Your task to perform on an android device: Open notification settings Image 0: 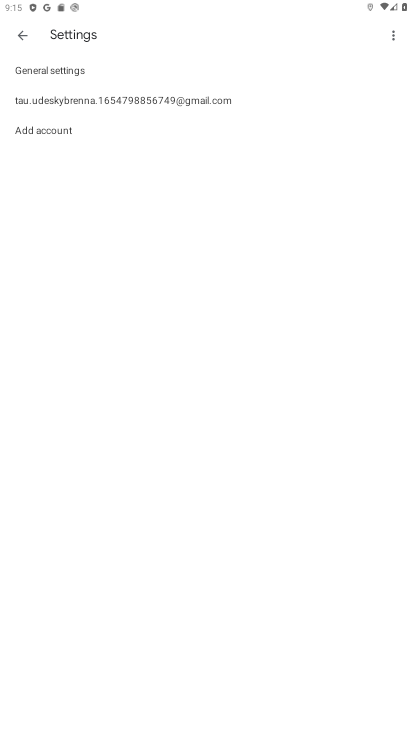
Step 0: press home button
Your task to perform on an android device: Open notification settings Image 1: 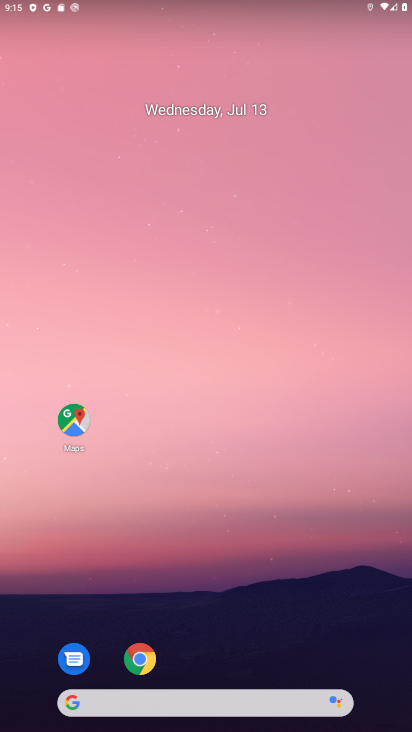
Step 1: drag from (230, 653) to (182, 5)
Your task to perform on an android device: Open notification settings Image 2: 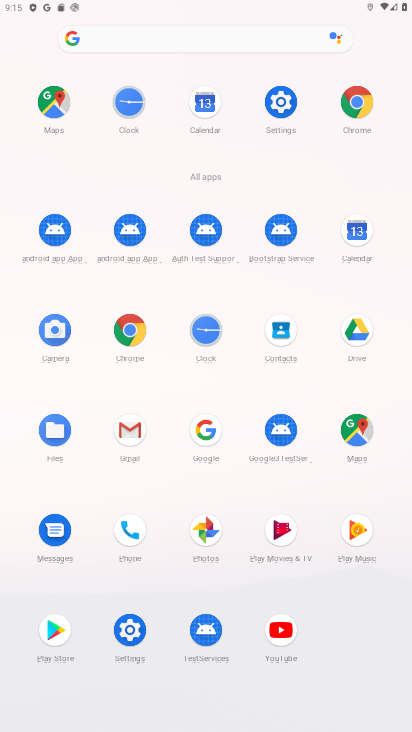
Step 2: click (279, 102)
Your task to perform on an android device: Open notification settings Image 3: 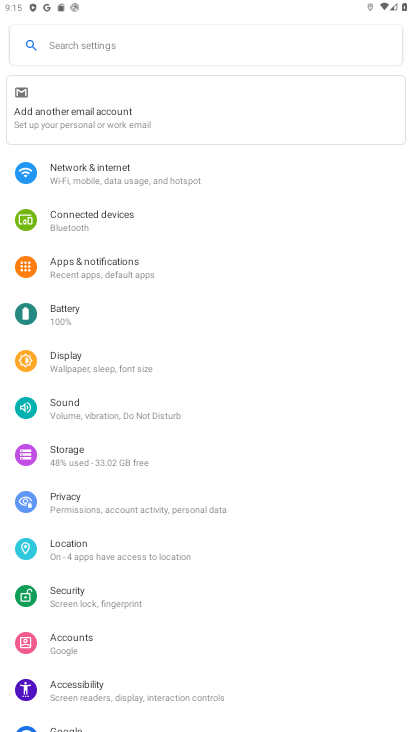
Step 3: click (143, 260)
Your task to perform on an android device: Open notification settings Image 4: 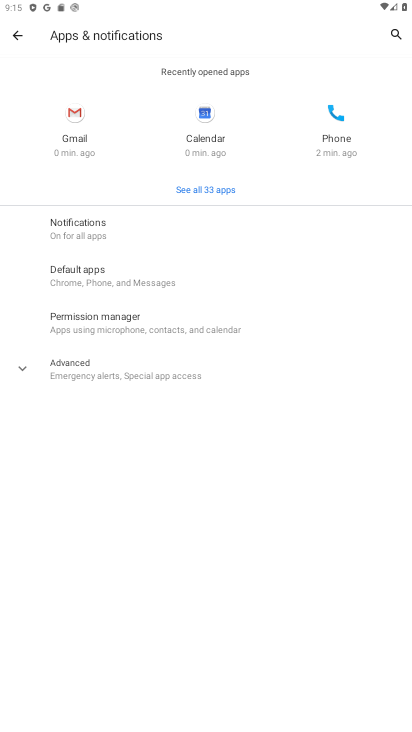
Step 4: click (115, 224)
Your task to perform on an android device: Open notification settings Image 5: 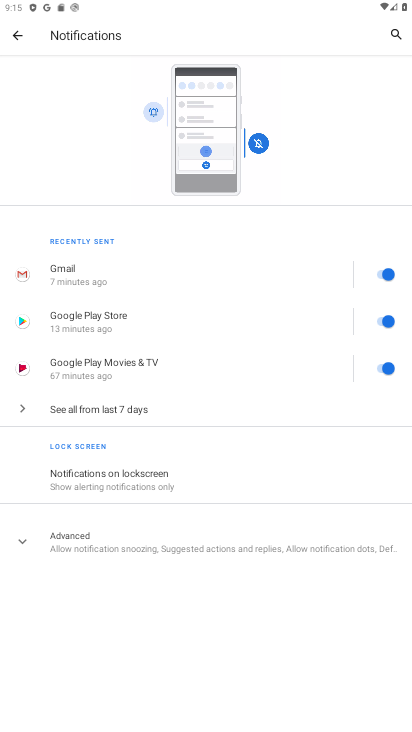
Step 5: click (71, 548)
Your task to perform on an android device: Open notification settings Image 6: 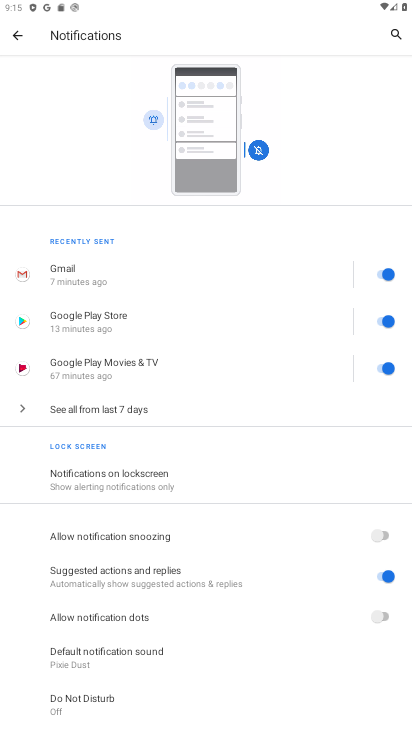
Step 6: task complete